Your task to perform on an android device: find photos in the google photos app Image 0: 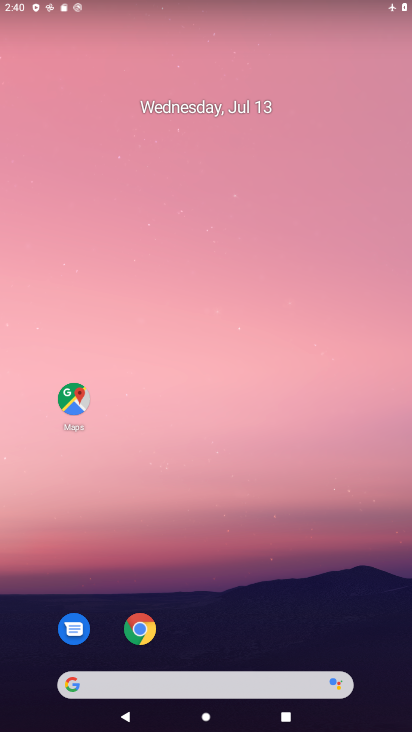
Step 0: drag from (325, 625) to (324, 97)
Your task to perform on an android device: find photos in the google photos app Image 1: 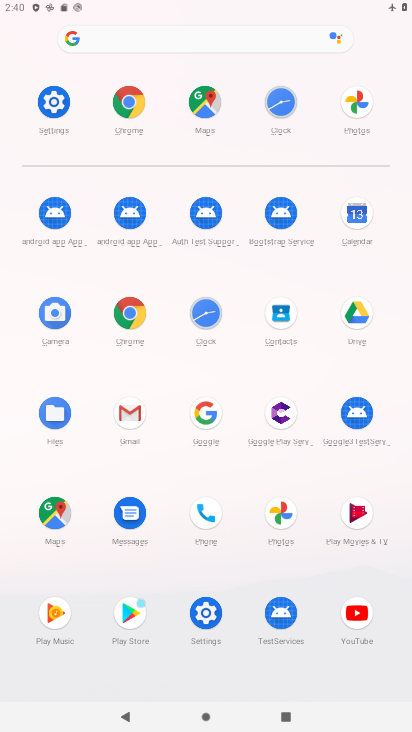
Step 1: click (266, 507)
Your task to perform on an android device: find photos in the google photos app Image 2: 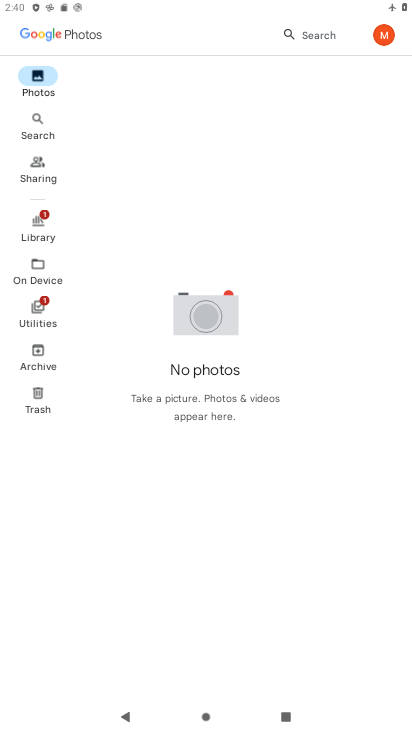
Step 2: task complete